Your task to perform on an android device: search for starred emails in the gmail app Image 0: 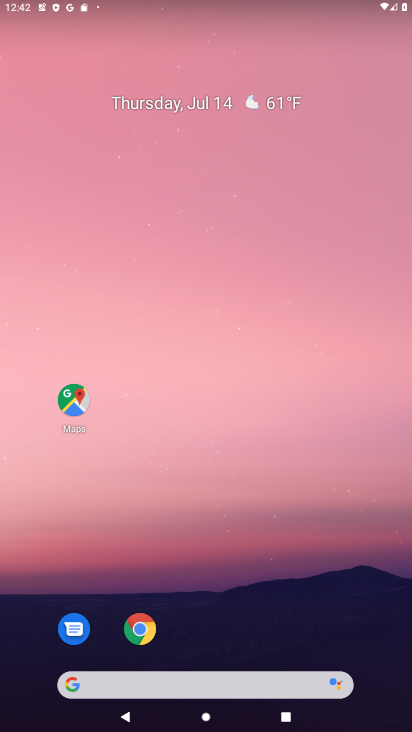
Step 0: drag from (172, 616) to (223, 281)
Your task to perform on an android device: search for starred emails in the gmail app Image 1: 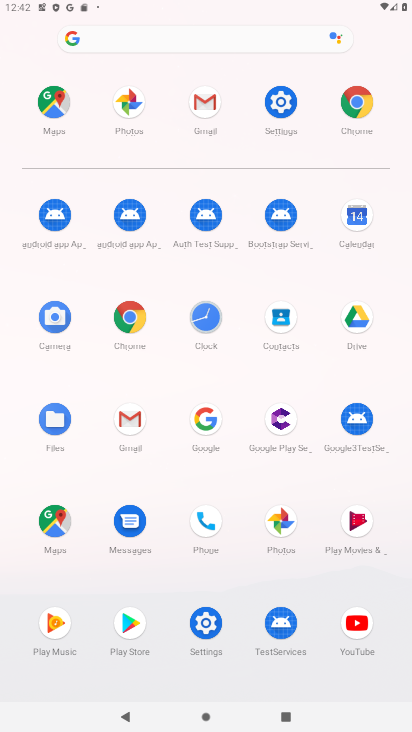
Step 1: click (204, 109)
Your task to perform on an android device: search for starred emails in the gmail app Image 2: 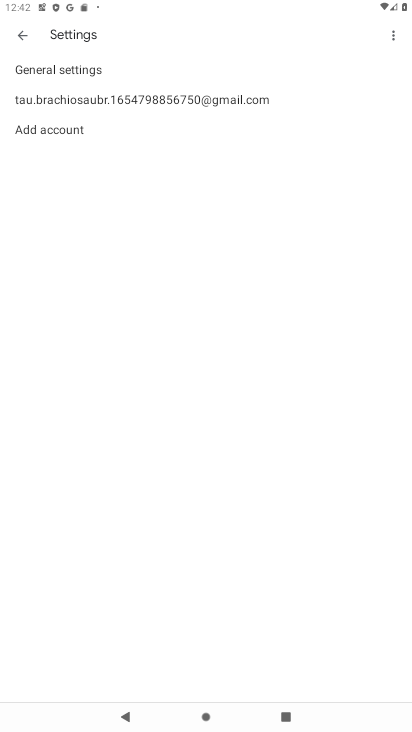
Step 2: click (28, 25)
Your task to perform on an android device: search for starred emails in the gmail app Image 3: 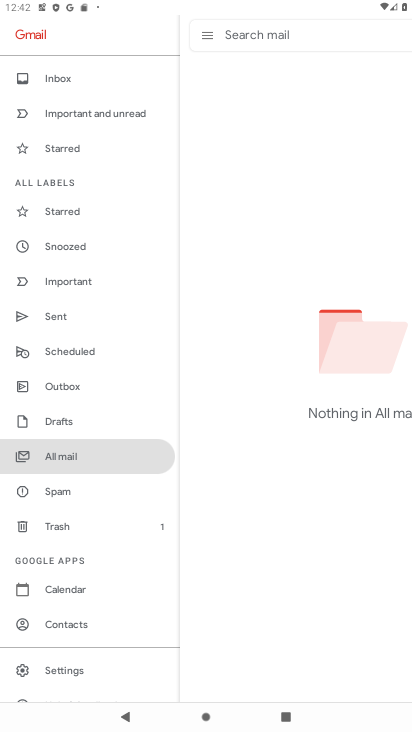
Step 3: click (103, 145)
Your task to perform on an android device: search for starred emails in the gmail app Image 4: 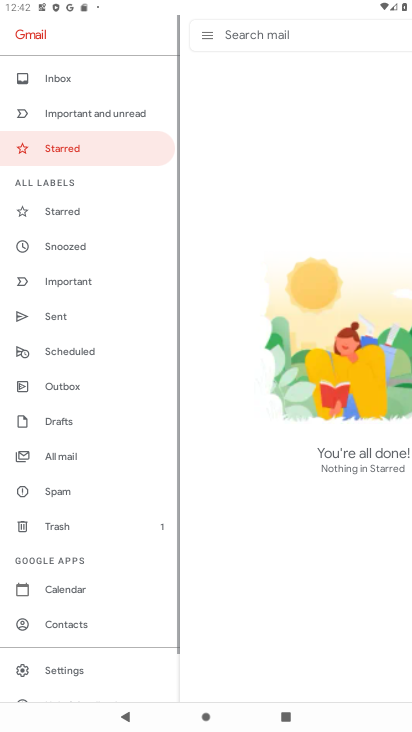
Step 4: task complete